Your task to perform on an android device: Open Chrome and go to the settings page Image 0: 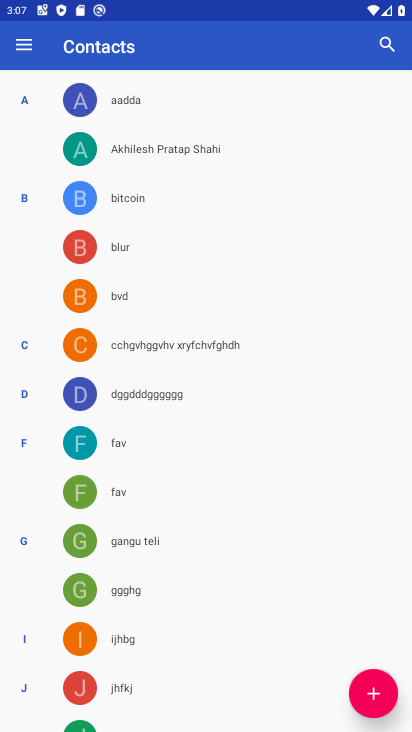
Step 0: press home button
Your task to perform on an android device: Open Chrome and go to the settings page Image 1: 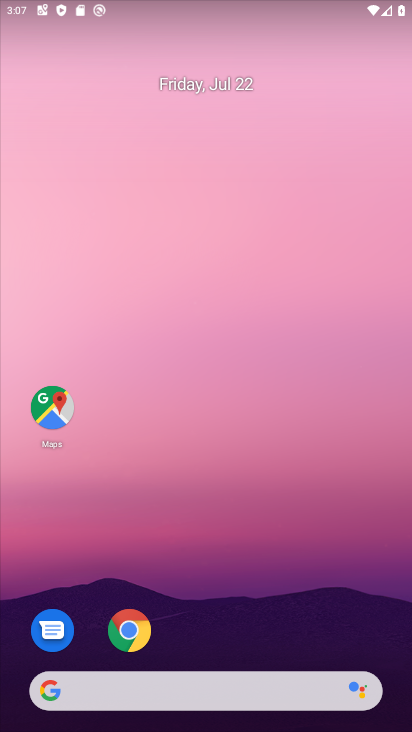
Step 1: drag from (396, 707) to (380, 189)
Your task to perform on an android device: Open Chrome and go to the settings page Image 2: 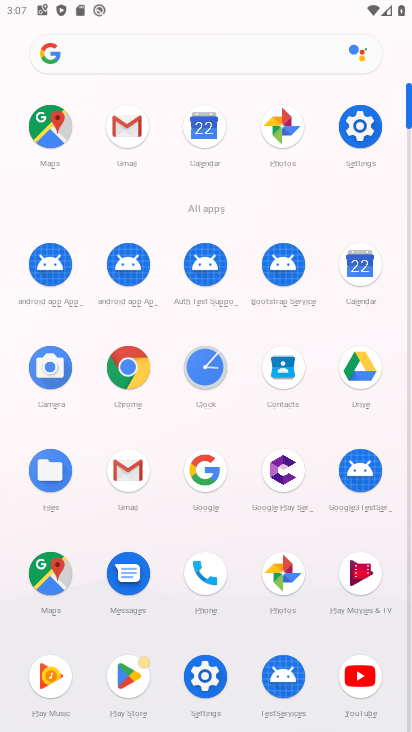
Step 2: click (129, 377)
Your task to perform on an android device: Open Chrome and go to the settings page Image 3: 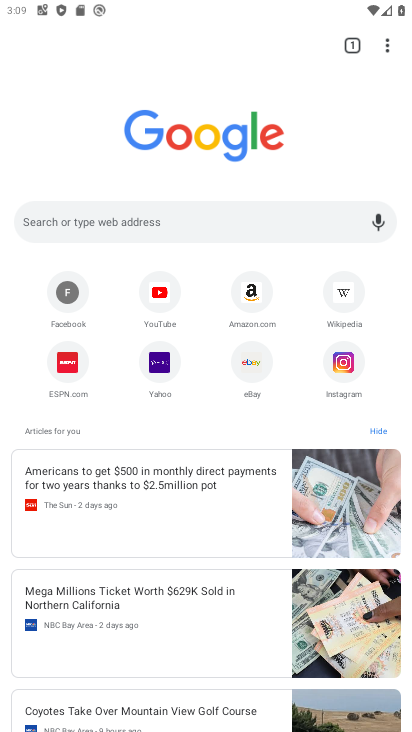
Step 3: click (385, 44)
Your task to perform on an android device: Open Chrome and go to the settings page Image 4: 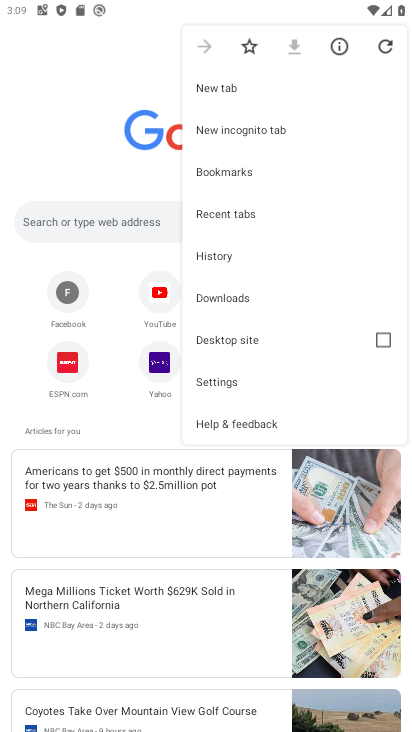
Step 4: click (220, 379)
Your task to perform on an android device: Open Chrome and go to the settings page Image 5: 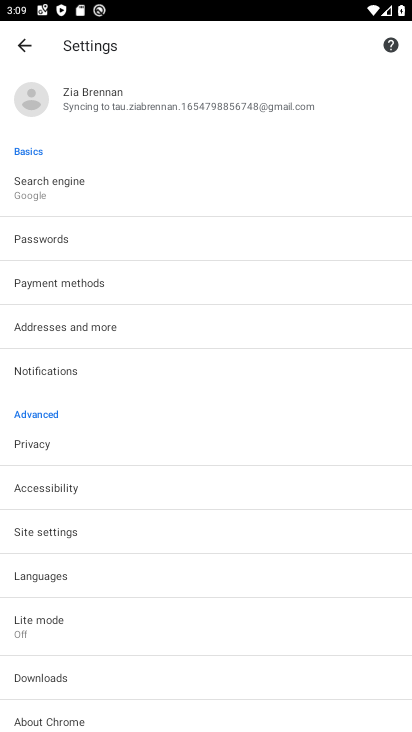
Step 5: task complete